Your task to perform on an android device: Open Google Maps Image 0: 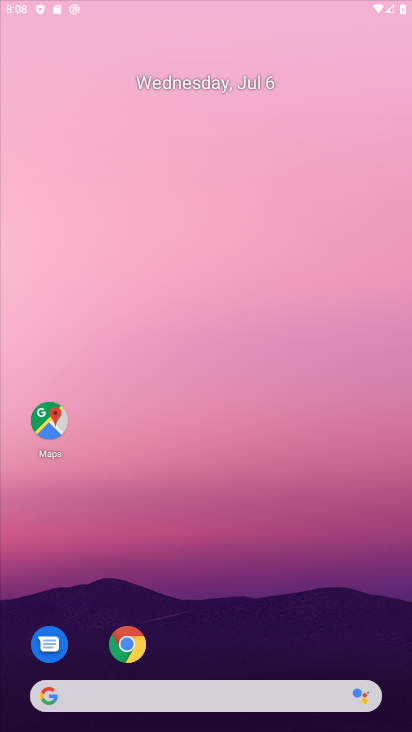
Step 0: drag from (226, 523) to (226, 124)
Your task to perform on an android device: Open Google Maps Image 1: 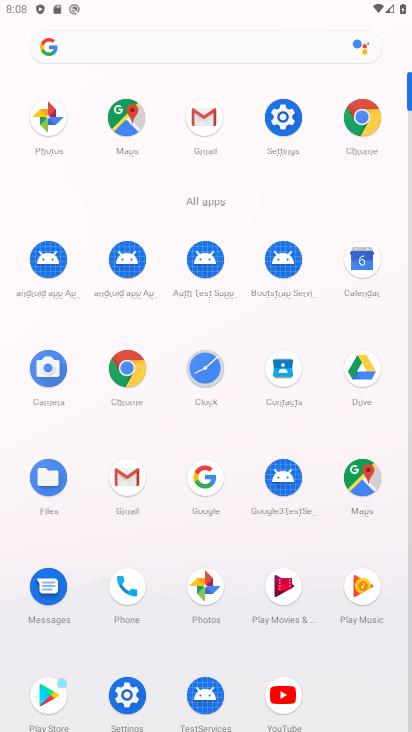
Step 1: click (131, 130)
Your task to perform on an android device: Open Google Maps Image 2: 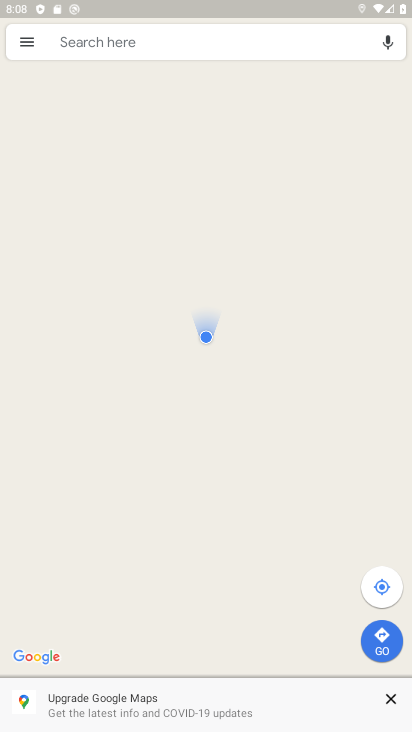
Step 2: task complete